Your task to perform on an android device: search for starred emails in the gmail app Image 0: 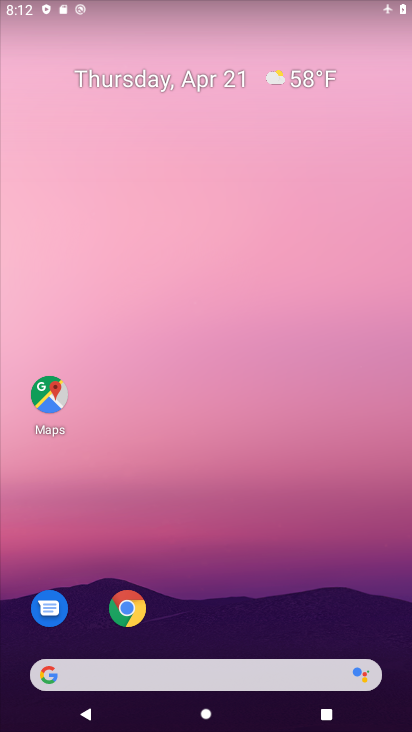
Step 0: drag from (281, 583) to (287, 119)
Your task to perform on an android device: search for starred emails in the gmail app Image 1: 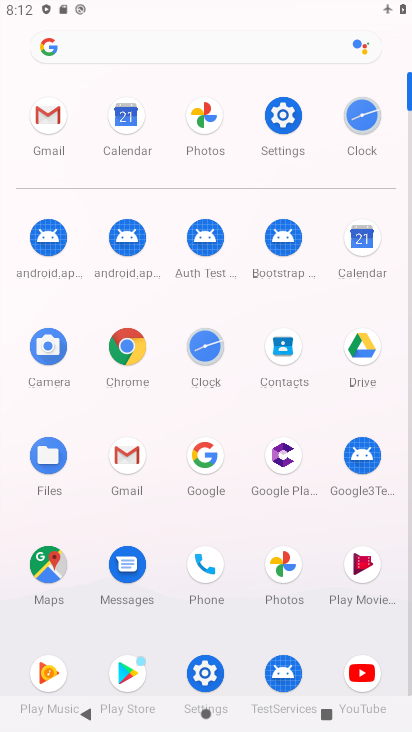
Step 1: click (47, 114)
Your task to perform on an android device: search for starred emails in the gmail app Image 2: 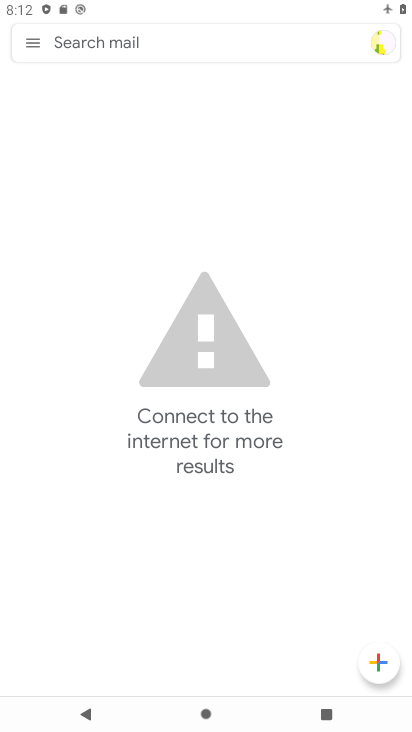
Step 2: task complete